Your task to perform on an android device: change the clock display to show seconds Image 0: 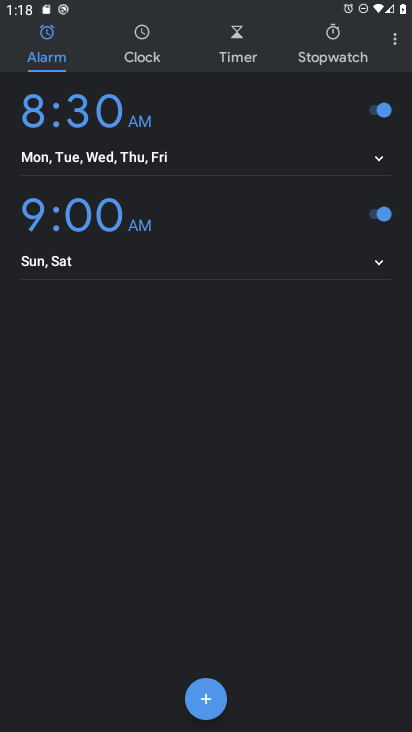
Step 0: press home button
Your task to perform on an android device: change the clock display to show seconds Image 1: 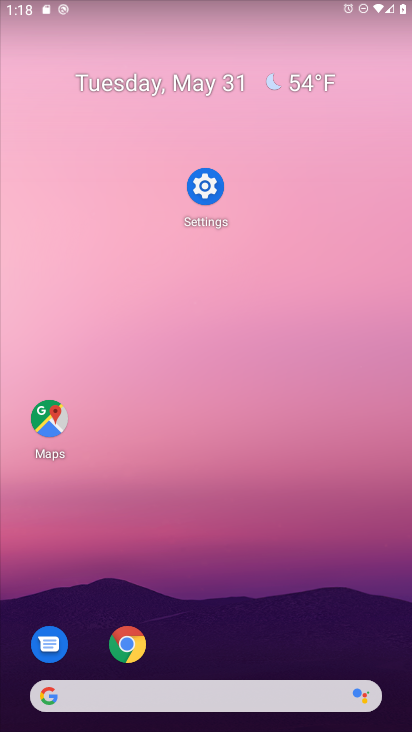
Step 1: drag from (216, 474) to (218, 45)
Your task to perform on an android device: change the clock display to show seconds Image 2: 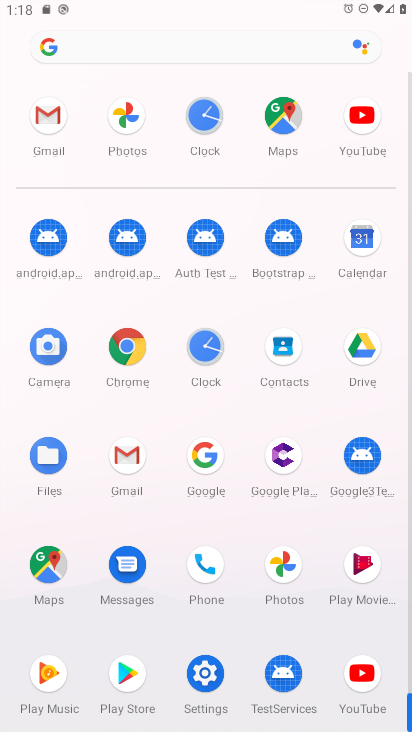
Step 2: click (206, 349)
Your task to perform on an android device: change the clock display to show seconds Image 3: 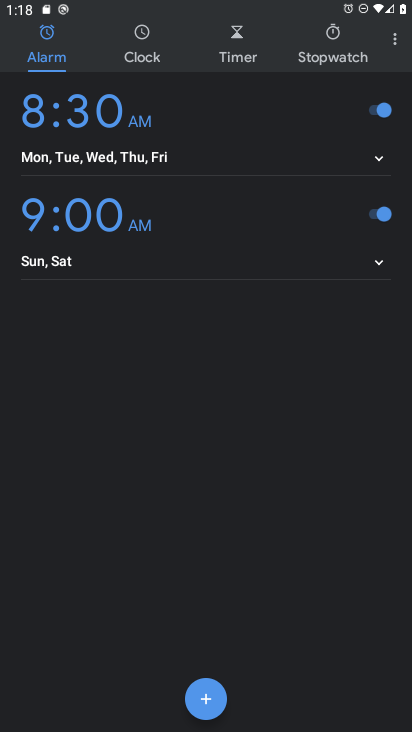
Step 3: click (395, 39)
Your task to perform on an android device: change the clock display to show seconds Image 4: 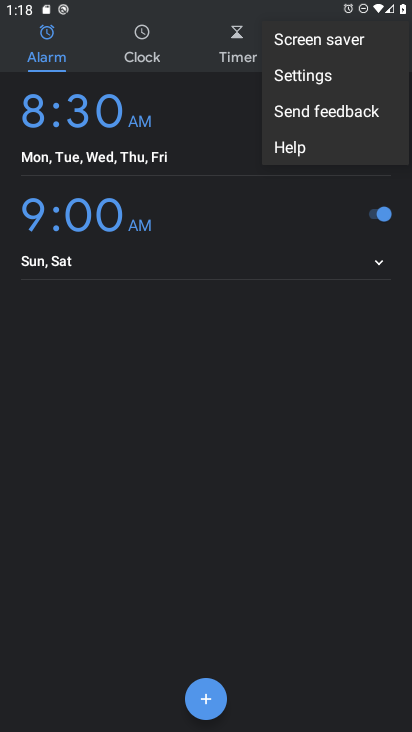
Step 4: click (314, 77)
Your task to perform on an android device: change the clock display to show seconds Image 5: 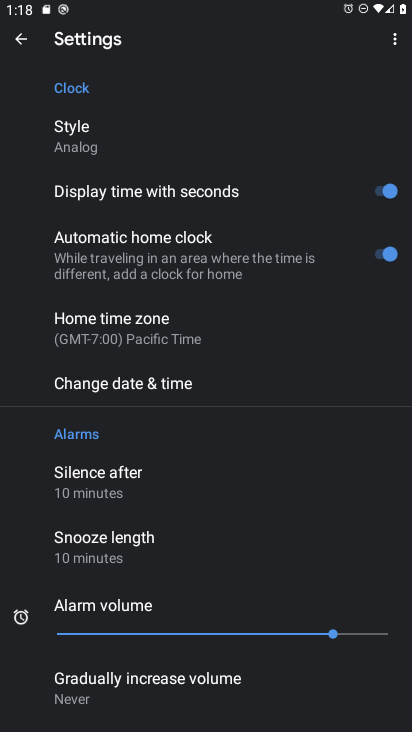
Step 5: task complete